Your task to perform on an android device: change notifications settings Image 0: 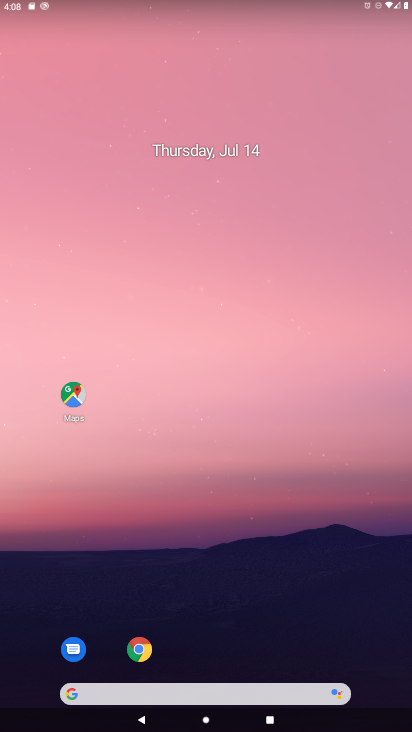
Step 0: drag from (209, 639) to (204, 129)
Your task to perform on an android device: change notifications settings Image 1: 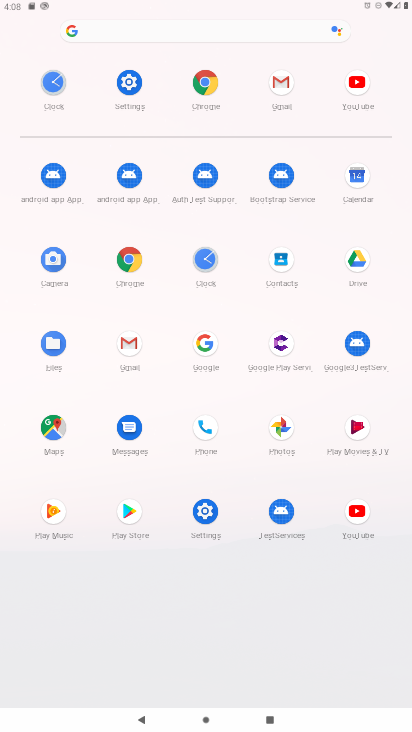
Step 1: click (210, 528)
Your task to perform on an android device: change notifications settings Image 2: 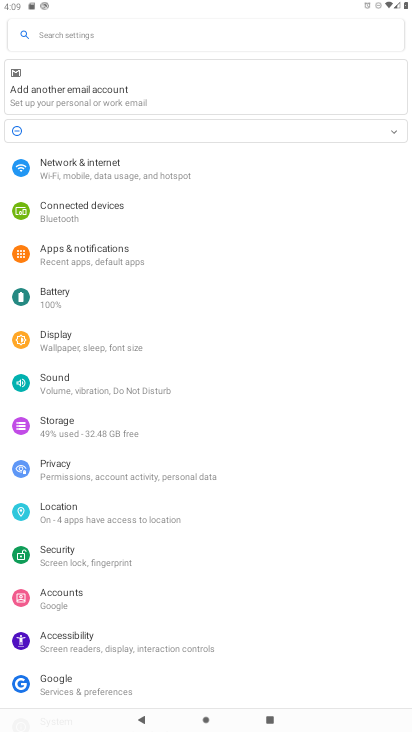
Step 2: click (128, 256)
Your task to perform on an android device: change notifications settings Image 3: 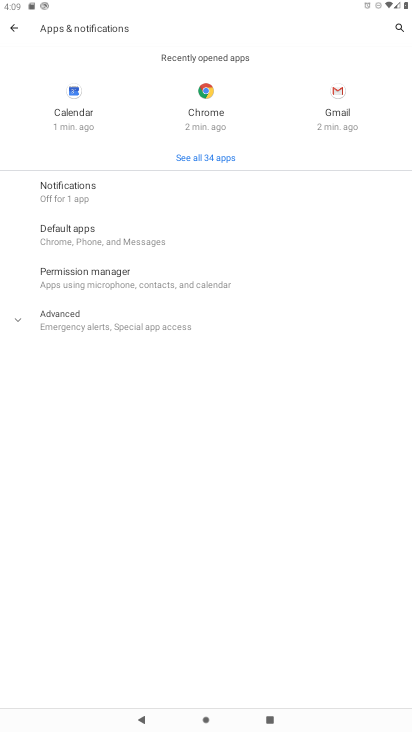
Step 3: click (86, 194)
Your task to perform on an android device: change notifications settings Image 4: 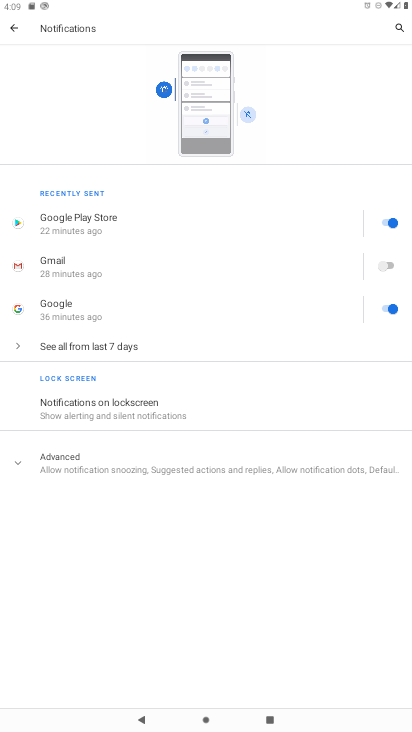
Step 4: click (110, 348)
Your task to perform on an android device: change notifications settings Image 5: 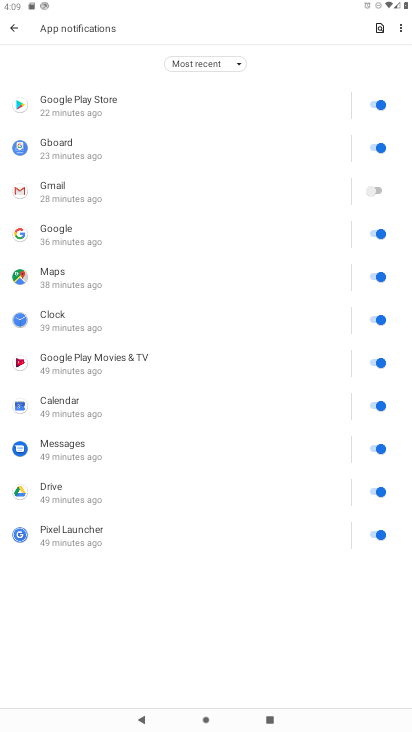
Step 5: click (368, 102)
Your task to perform on an android device: change notifications settings Image 6: 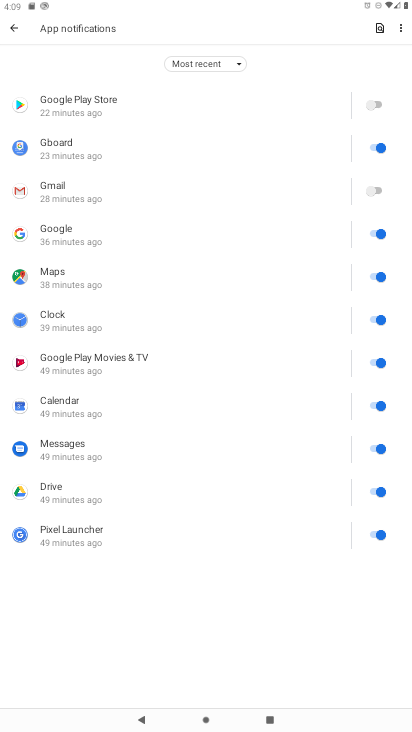
Step 6: click (372, 143)
Your task to perform on an android device: change notifications settings Image 7: 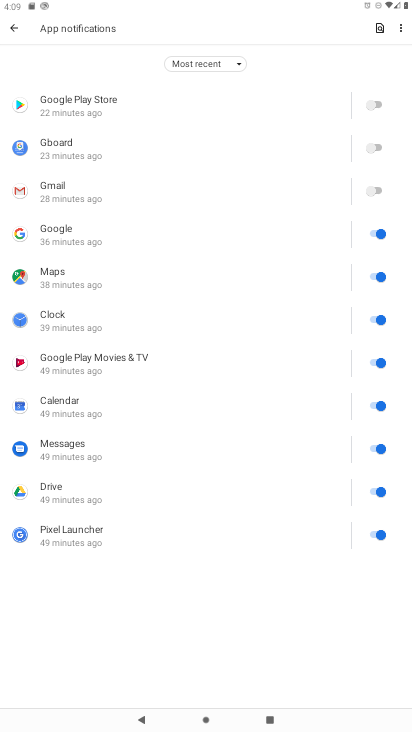
Step 7: click (369, 242)
Your task to perform on an android device: change notifications settings Image 8: 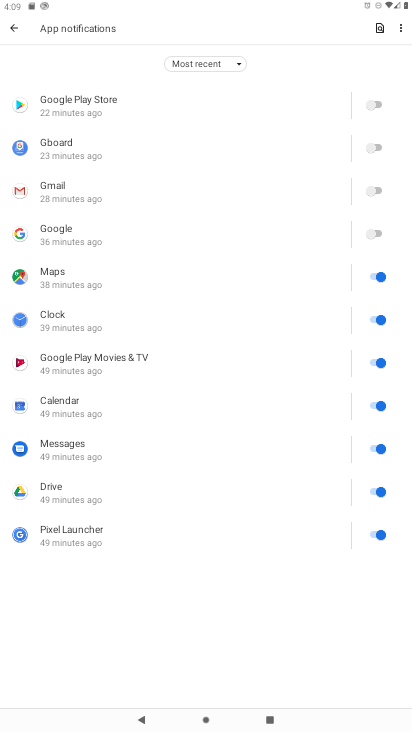
Step 8: click (378, 287)
Your task to perform on an android device: change notifications settings Image 9: 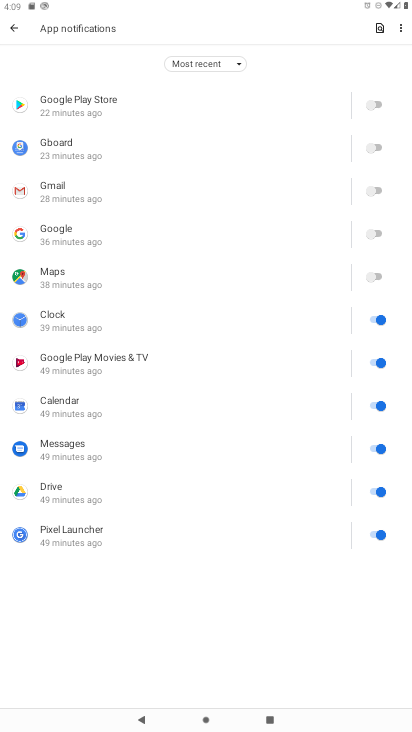
Step 9: click (376, 317)
Your task to perform on an android device: change notifications settings Image 10: 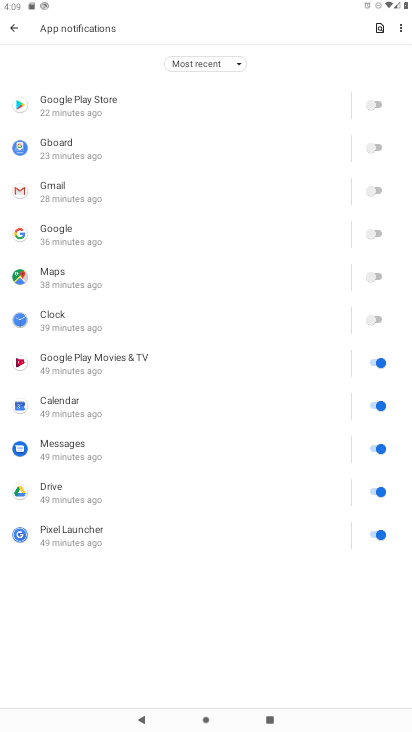
Step 10: click (376, 369)
Your task to perform on an android device: change notifications settings Image 11: 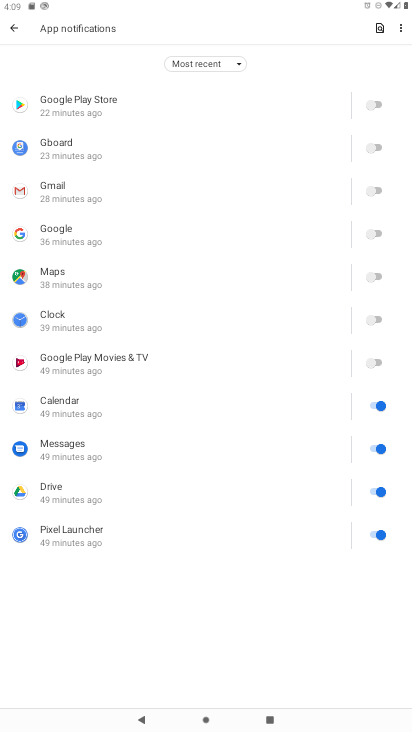
Step 11: click (374, 396)
Your task to perform on an android device: change notifications settings Image 12: 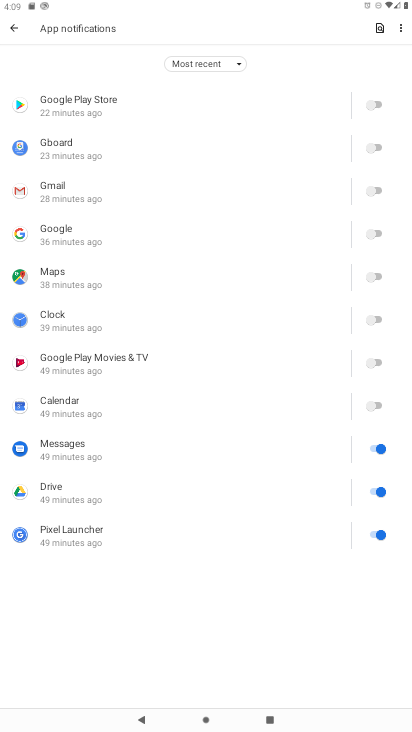
Step 12: click (382, 454)
Your task to perform on an android device: change notifications settings Image 13: 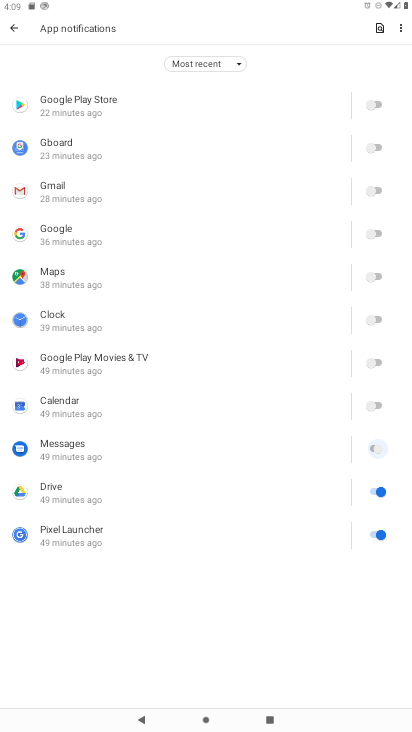
Step 13: click (384, 497)
Your task to perform on an android device: change notifications settings Image 14: 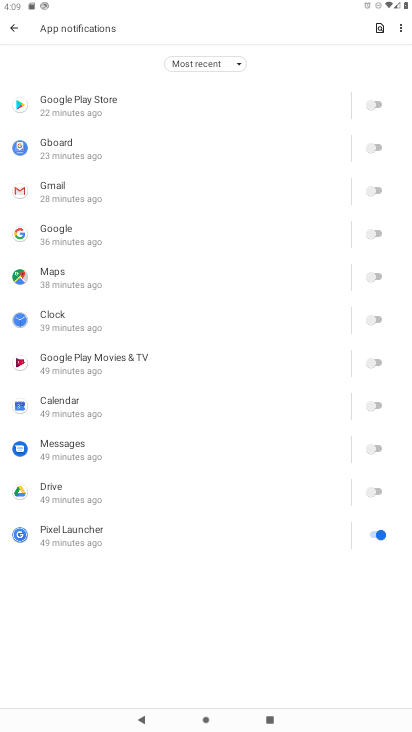
Step 14: click (375, 542)
Your task to perform on an android device: change notifications settings Image 15: 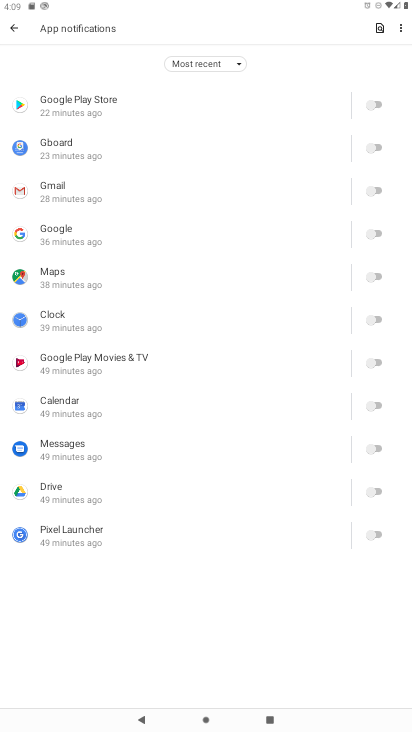
Step 15: task complete